Your task to perform on an android device: Open Chrome and go to settings Image 0: 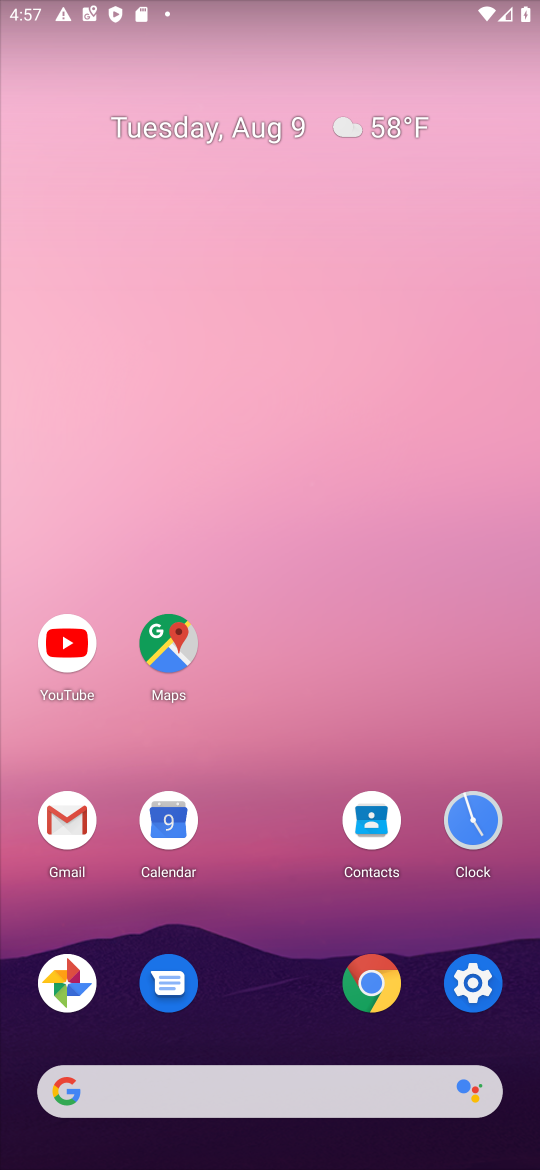
Step 0: click (369, 983)
Your task to perform on an android device: Open Chrome and go to settings Image 1: 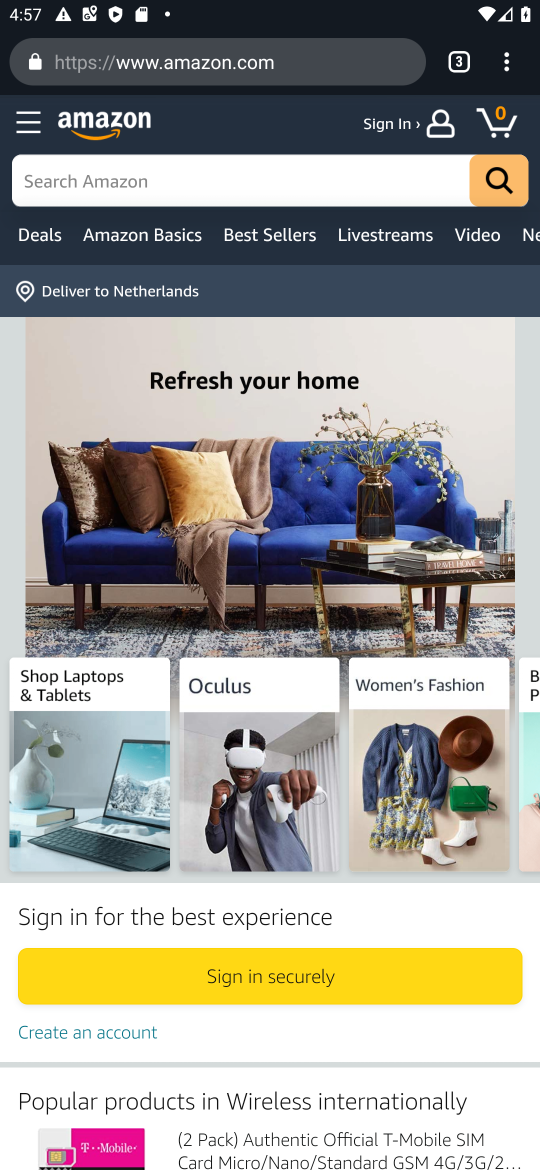
Step 1: click (499, 63)
Your task to perform on an android device: Open Chrome and go to settings Image 2: 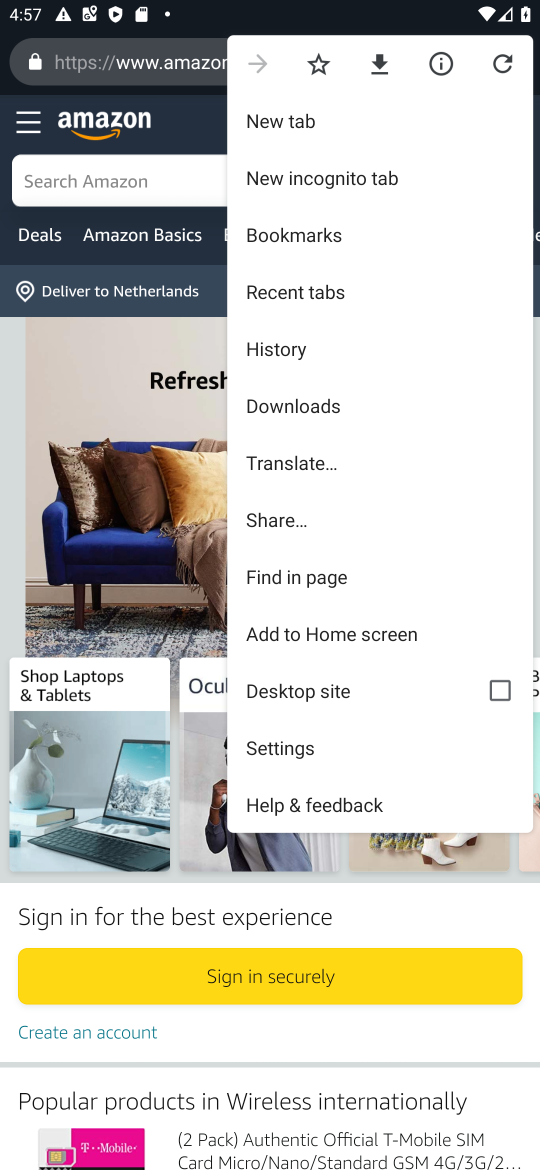
Step 2: click (289, 746)
Your task to perform on an android device: Open Chrome and go to settings Image 3: 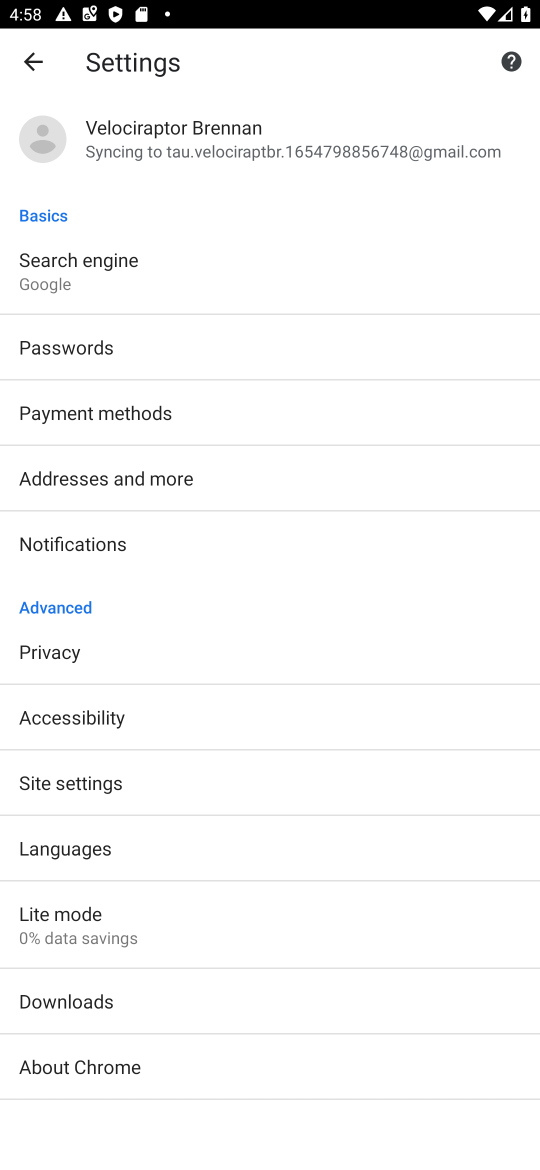
Step 3: task complete